Your task to perform on an android device: Open Google Chrome and open the bookmarks view Image 0: 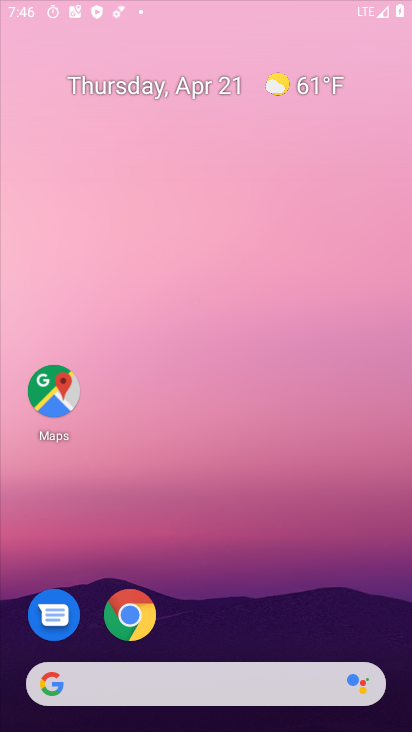
Step 0: drag from (0, 519) to (4, 562)
Your task to perform on an android device: Open Google Chrome and open the bookmarks view Image 1: 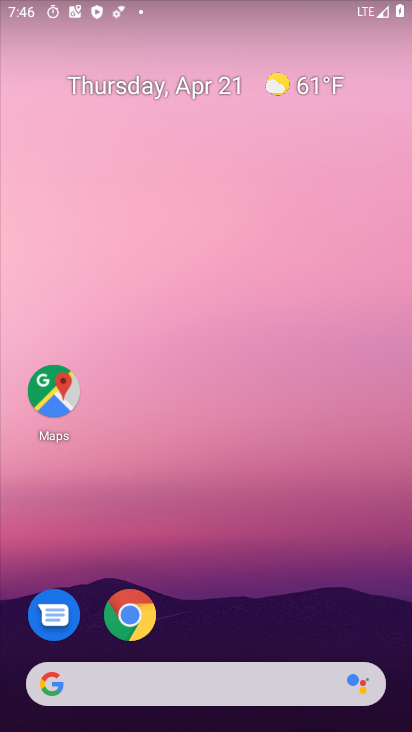
Step 1: drag from (191, 636) to (222, 25)
Your task to perform on an android device: Open Google Chrome and open the bookmarks view Image 2: 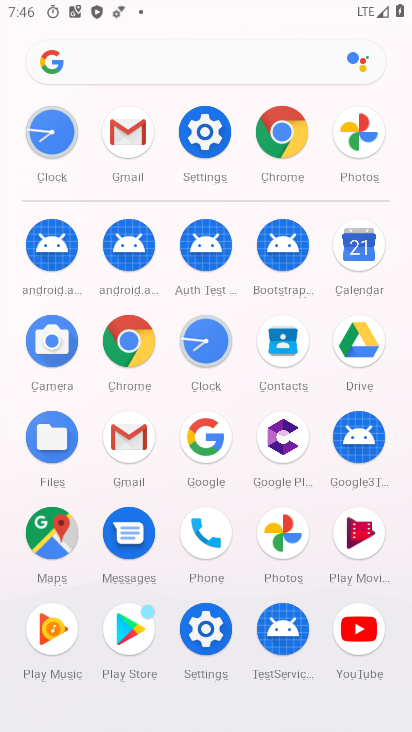
Step 2: click (278, 126)
Your task to perform on an android device: Open Google Chrome and open the bookmarks view Image 3: 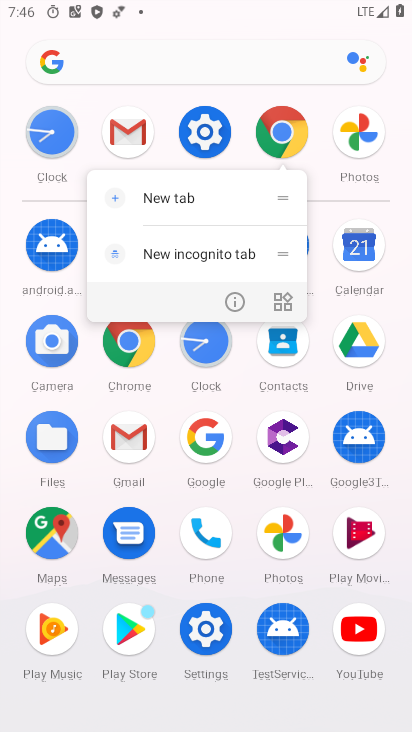
Step 3: click (234, 301)
Your task to perform on an android device: Open Google Chrome and open the bookmarks view Image 4: 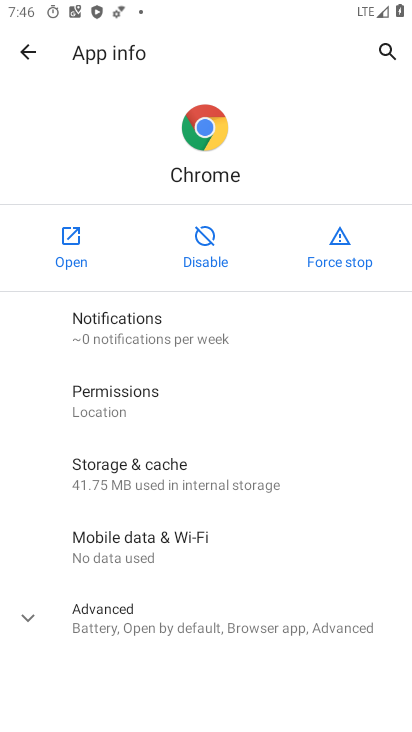
Step 4: click (55, 221)
Your task to perform on an android device: Open Google Chrome and open the bookmarks view Image 5: 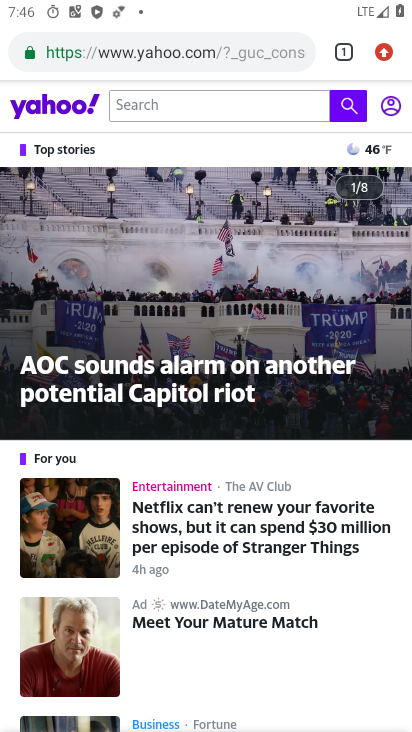
Step 5: task complete